Your task to perform on an android device: snooze an email in the gmail app Image 0: 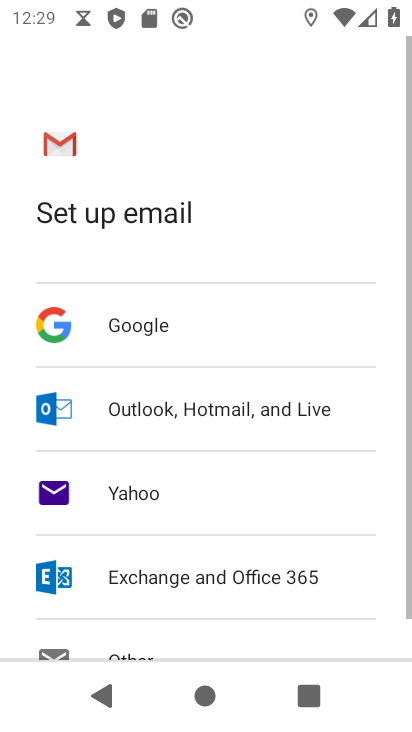
Step 0: press back button
Your task to perform on an android device: snooze an email in the gmail app Image 1: 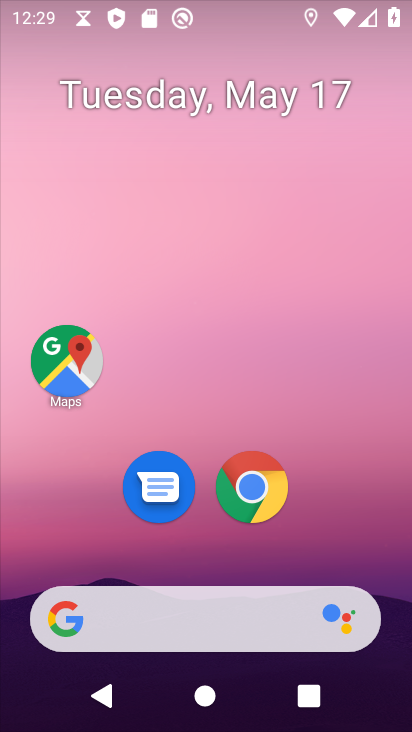
Step 1: drag from (371, 554) to (307, 54)
Your task to perform on an android device: snooze an email in the gmail app Image 2: 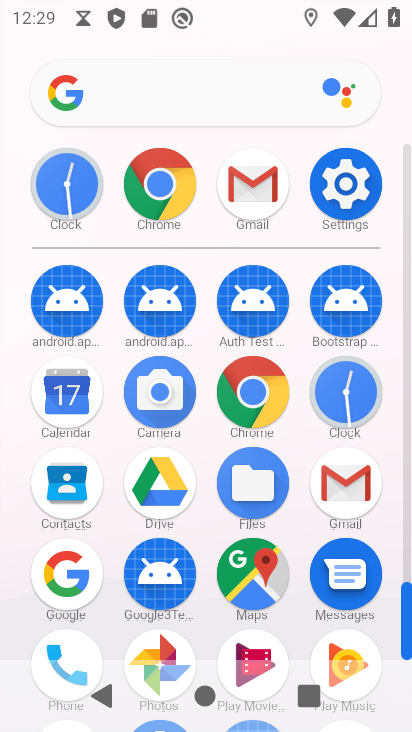
Step 2: click (248, 175)
Your task to perform on an android device: snooze an email in the gmail app Image 3: 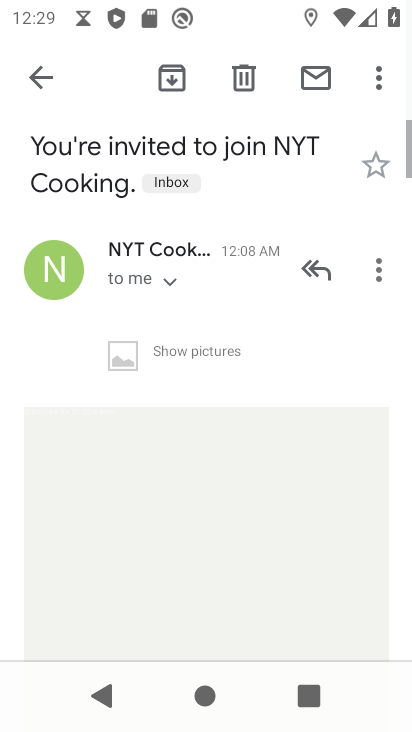
Step 3: click (21, 64)
Your task to perform on an android device: snooze an email in the gmail app Image 4: 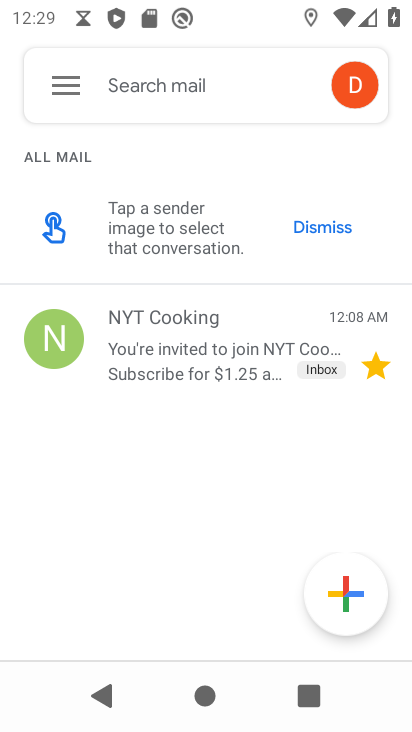
Step 4: click (56, 69)
Your task to perform on an android device: snooze an email in the gmail app Image 5: 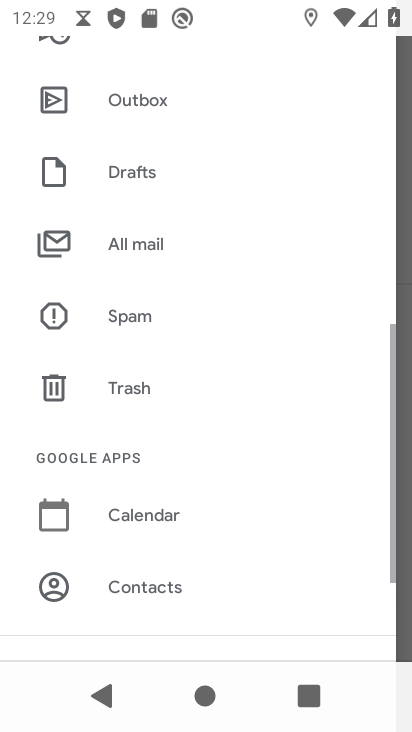
Step 5: drag from (188, 521) to (214, 95)
Your task to perform on an android device: snooze an email in the gmail app Image 6: 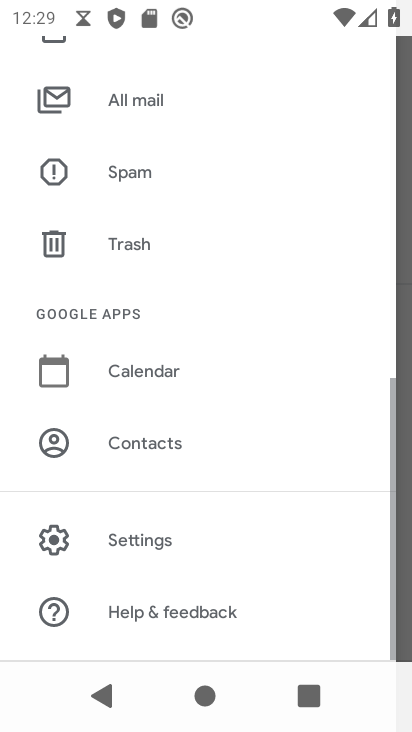
Step 6: click (154, 528)
Your task to perform on an android device: snooze an email in the gmail app Image 7: 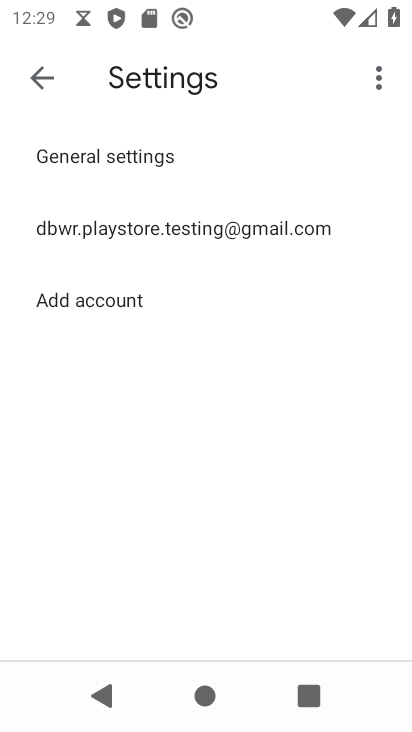
Step 7: click (156, 232)
Your task to perform on an android device: snooze an email in the gmail app Image 8: 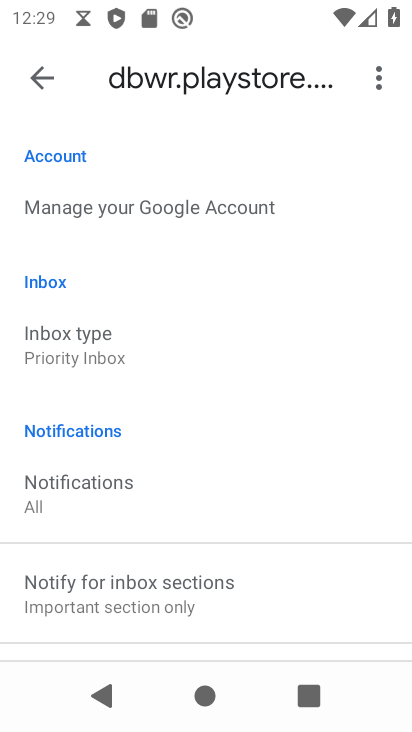
Step 8: drag from (256, 558) to (263, 183)
Your task to perform on an android device: snooze an email in the gmail app Image 9: 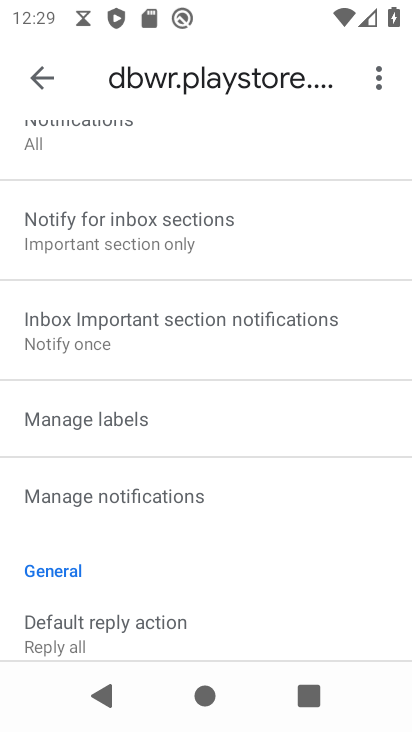
Step 9: drag from (194, 541) to (238, 167)
Your task to perform on an android device: snooze an email in the gmail app Image 10: 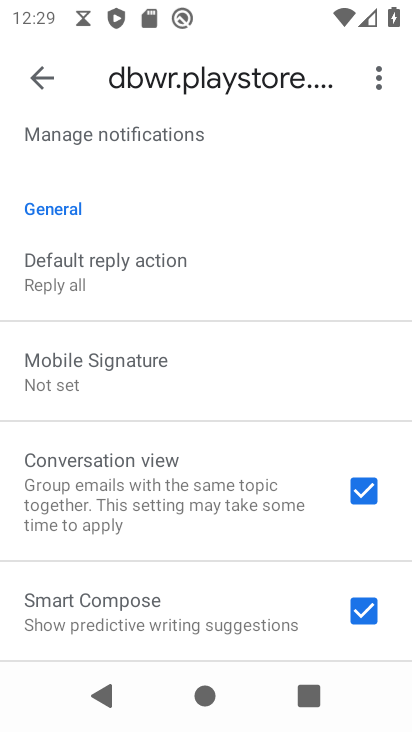
Step 10: drag from (177, 608) to (228, 190)
Your task to perform on an android device: snooze an email in the gmail app Image 11: 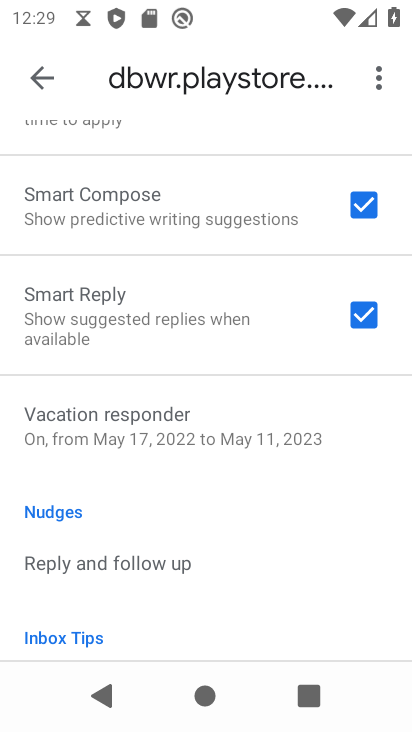
Step 11: drag from (166, 560) to (174, 172)
Your task to perform on an android device: snooze an email in the gmail app Image 12: 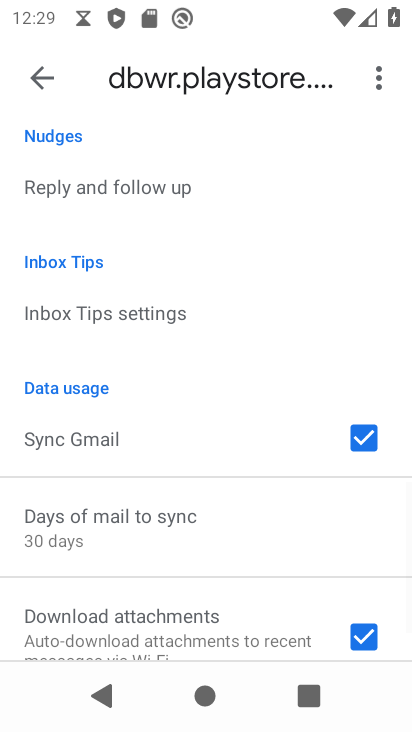
Step 12: drag from (153, 593) to (207, 192)
Your task to perform on an android device: snooze an email in the gmail app Image 13: 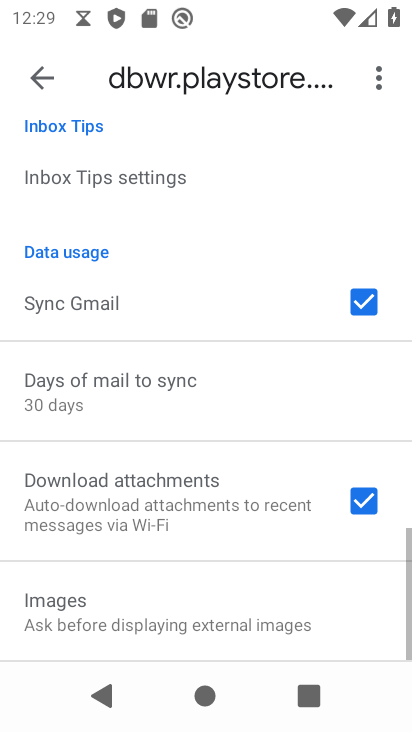
Step 13: drag from (200, 268) to (153, 688)
Your task to perform on an android device: snooze an email in the gmail app Image 14: 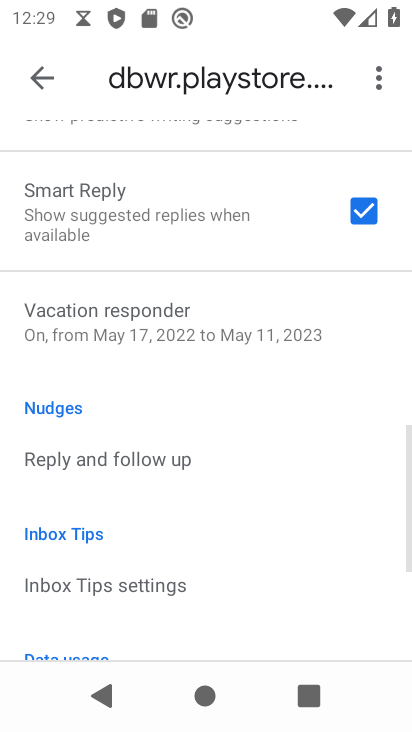
Step 14: drag from (249, 222) to (190, 650)
Your task to perform on an android device: snooze an email in the gmail app Image 15: 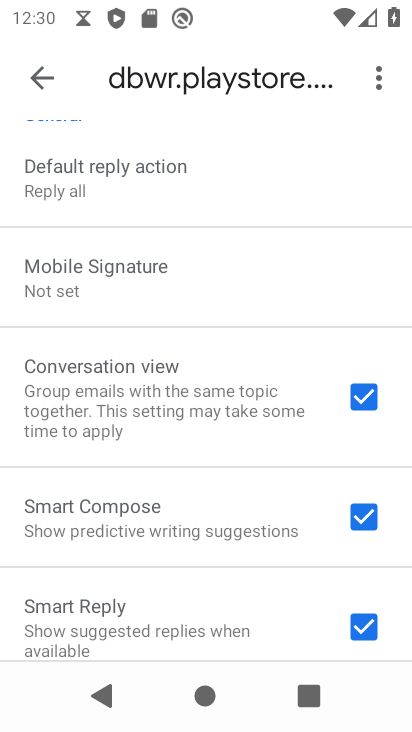
Step 15: drag from (177, 215) to (165, 652)
Your task to perform on an android device: snooze an email in the gmail app Image 16: 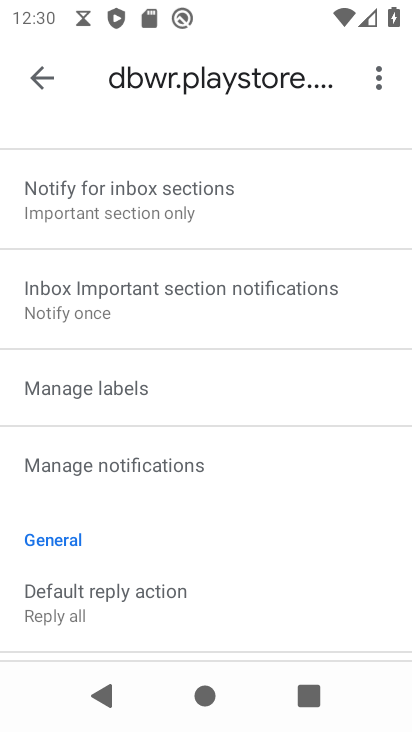
Step 16: click (173, 453)
Your task to perform on an android device: snooze an email in the gmail app Image 17: 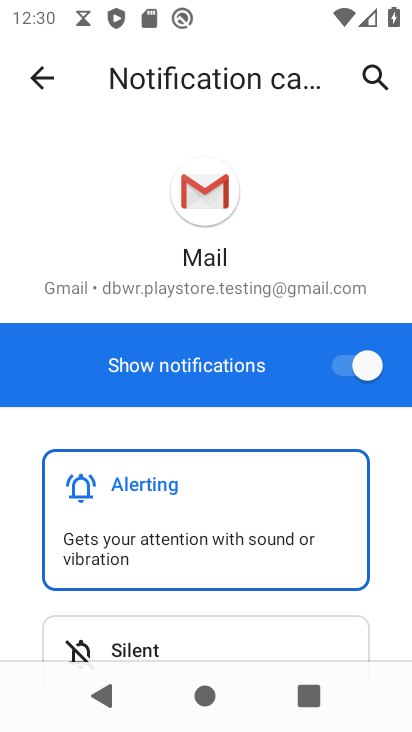
Step 17: click (46, 78)
Your task to perform on an android device: snooze an email in the gmail app Image 18: 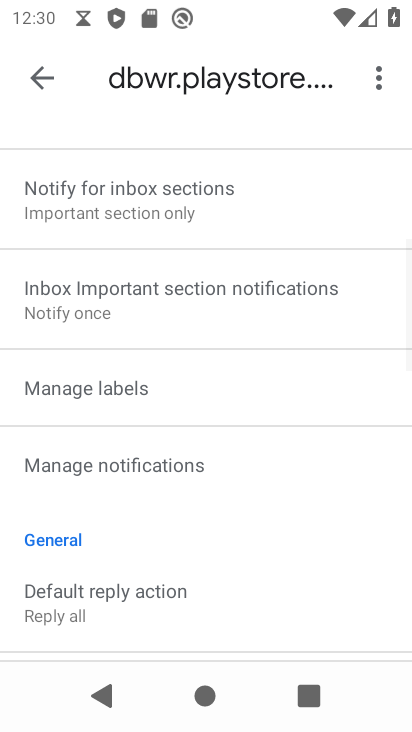
Step 18: drag from (238, 193) to (235, 610)
Your task to perform on an android device: snooze an email in the gmail app Image 19: 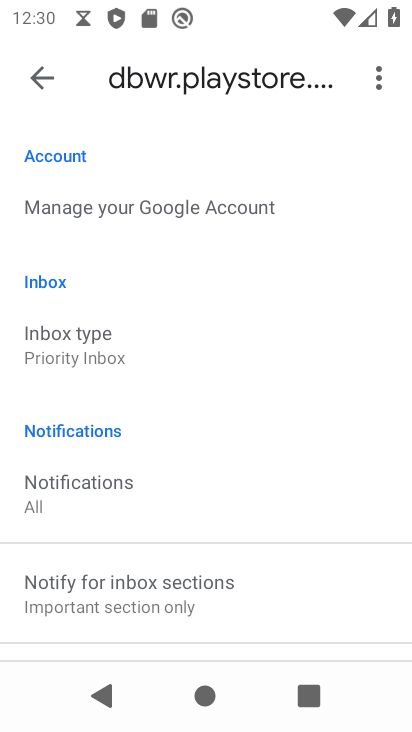
Step 19: click (38, 69)
Your task to perform on an android device: snooze an email in the gmail app Image 20: 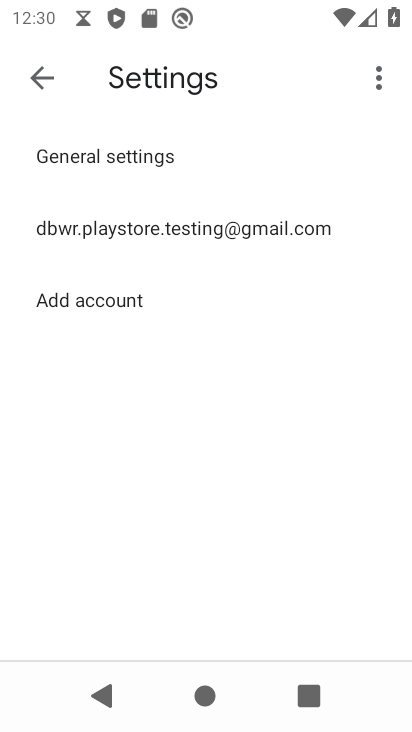
Step 20: click (38, 69)
Your task to perform on an android device: snooze an email in the gmail app Image 21: 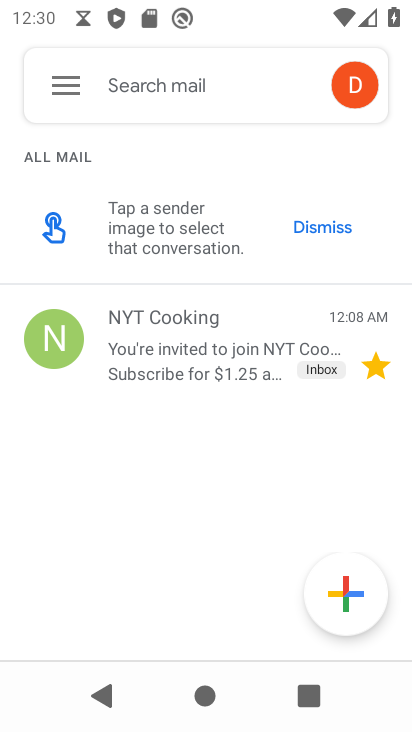
Step 21: click (197, 330)
Your task to perform on an android device: snooze an email in the gmail app Image 22: 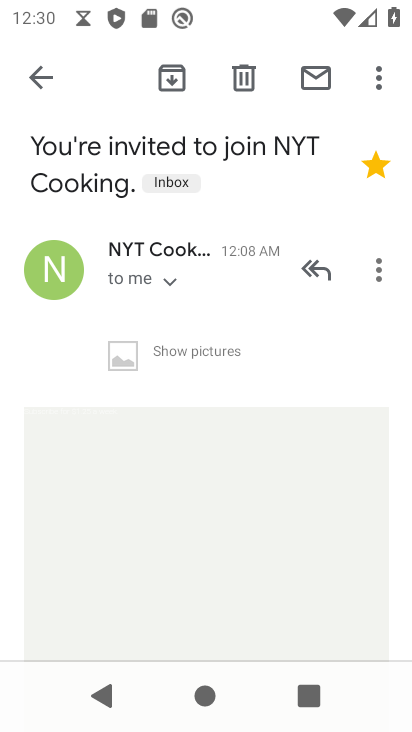
Step 22: drag from (381, 80) to (274, 83)
Your task to perform on an android device: snooze an email in the gmail app Image 23: 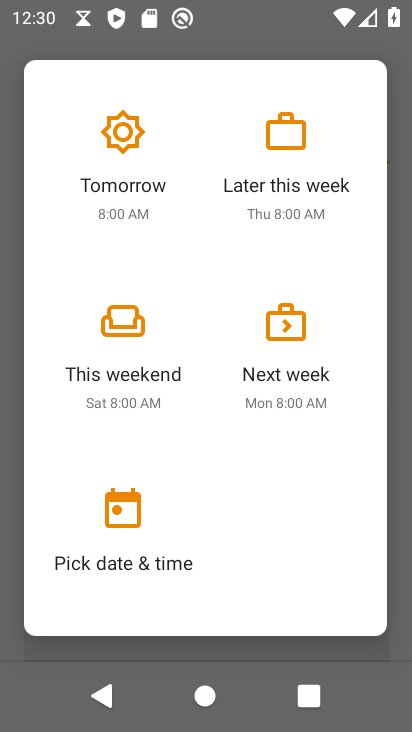
Step 23: click (125, 340)
Your task to perform on an android device: snooze an email in the gmail app Image 24: 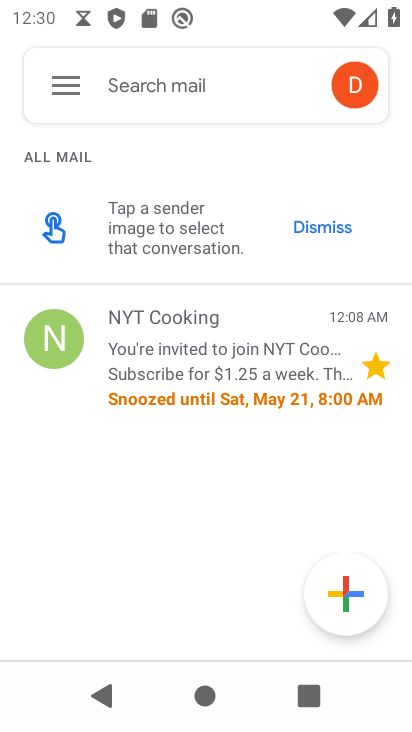
Step 24: task complete